Your task to perform on an android device: What's the weather? Image 0: 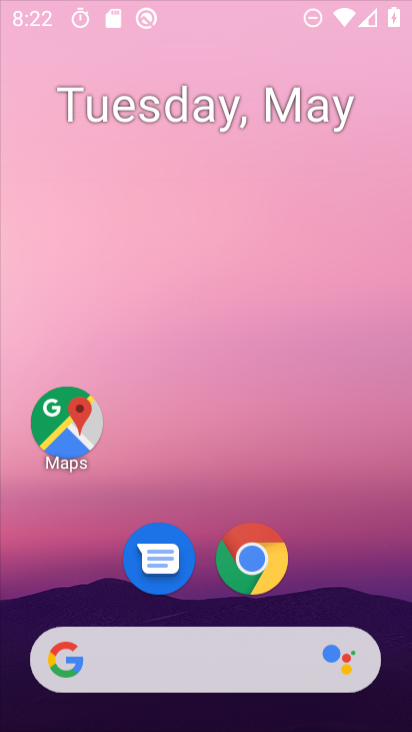
Step 0: click (292, 31)
Your task to perform on an android device: What's the weather? Image 1: 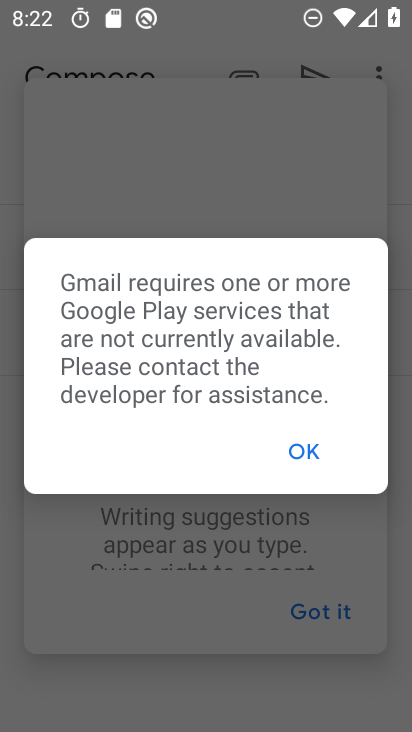
Step 1: press home button
Your task to perform on an android device: What's the weather? Image 2: 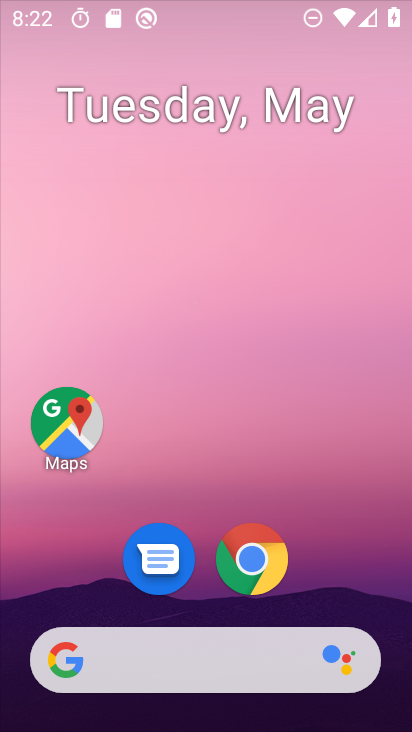
Step 2: drag from (393, 656) to (371, 60)
Your task to perform on an android device: What's the weather? Image 3: 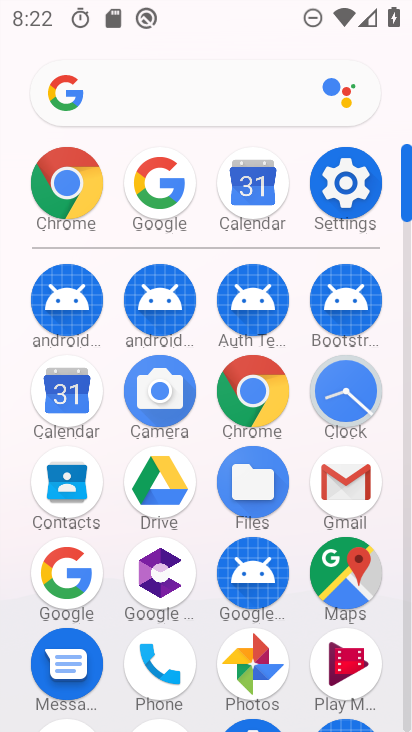
Step 3: click (83, 585)
Your task to perform on an android device: What's the weather? Image 4: 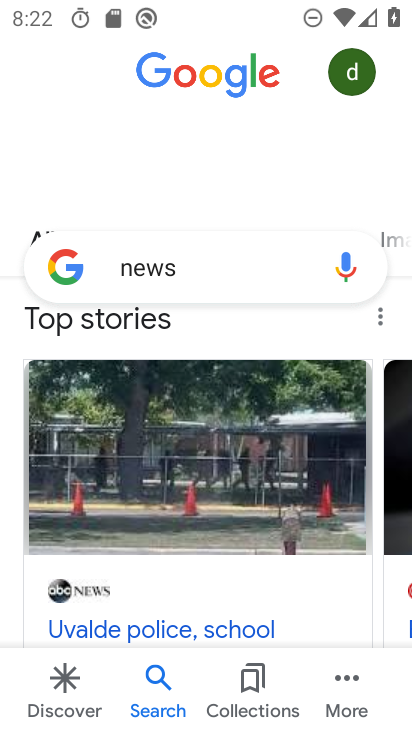
Step 4: press back button
Your task to perform on an android device: What's the weather? Image 5: 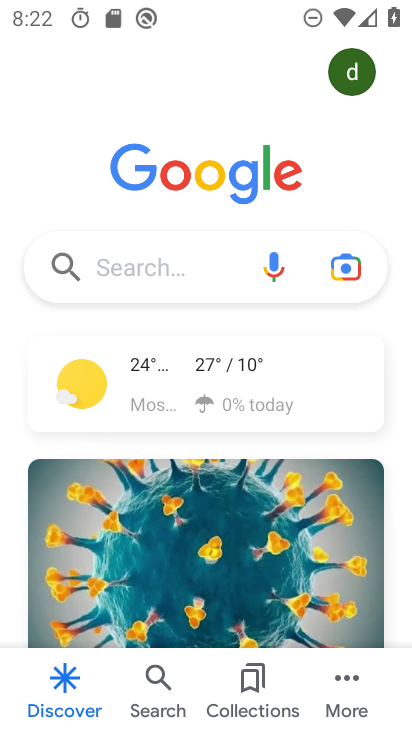
Step 5: click (157, 295)
Your task to perform on an android device: What's the weather? Image 6: 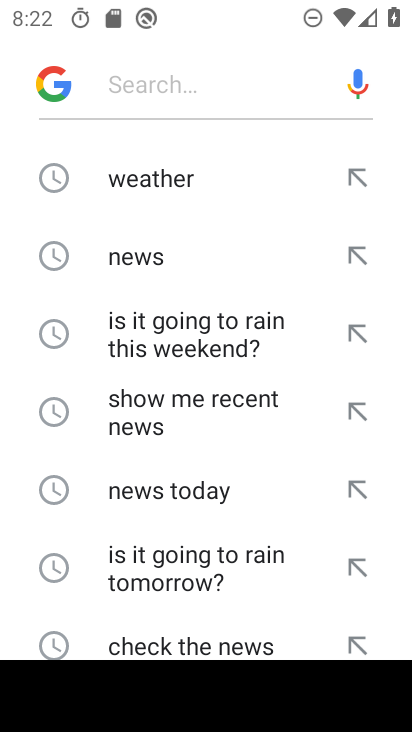
Step 6: click (188, 187)
Your task to perform on an android device: What's the weather? Image 7: 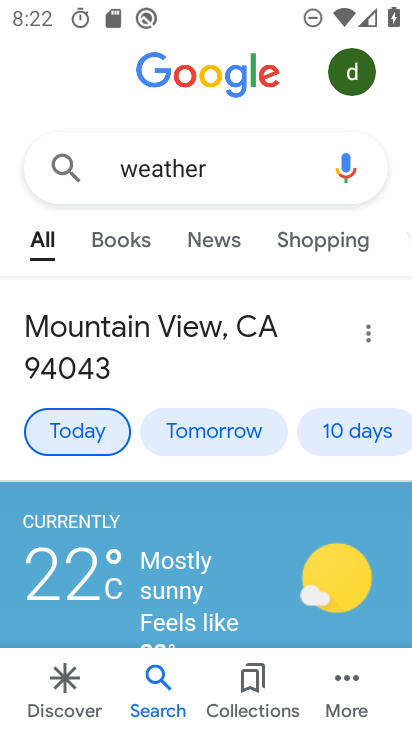
Step 7: task complete